Your task to perform on an android device: Go to ESPN.com Image 0: 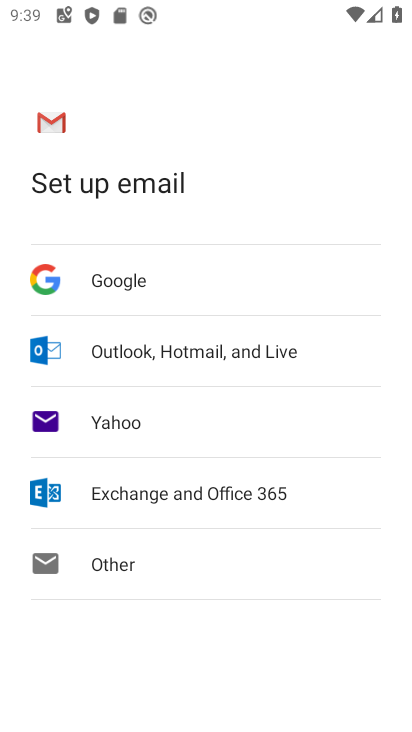
Step 0: press home button
Your task to perform on an android device: Go to ESPN.com Image 1: 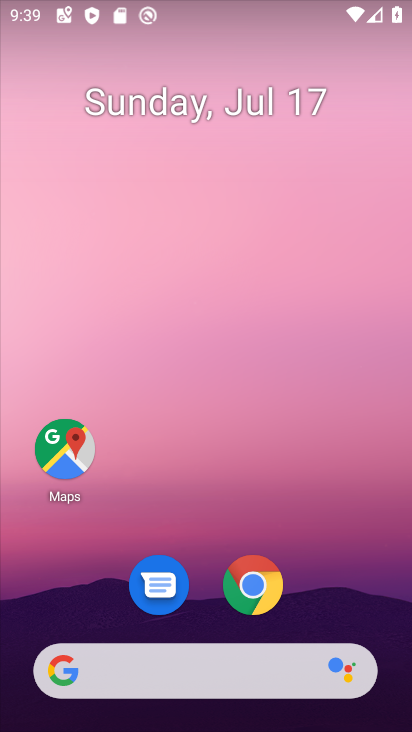
Step 1: click (234, 675)
Your task to perform on an android device: Go to ESPN.com Image 2: 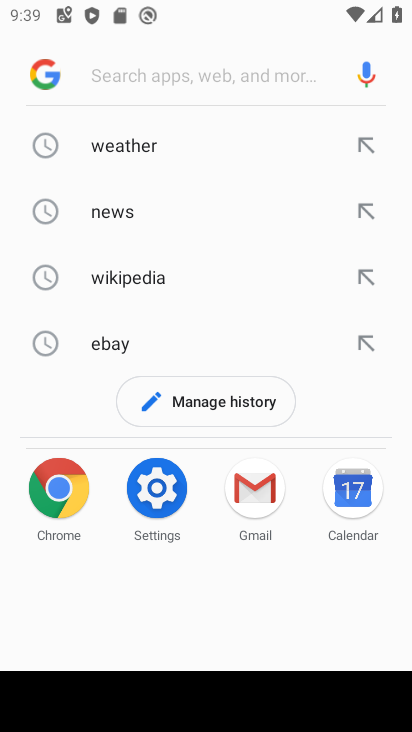
Step 2: type "espn.com"
Your task to perform on an android device: Go to ESPN.com Image 3: 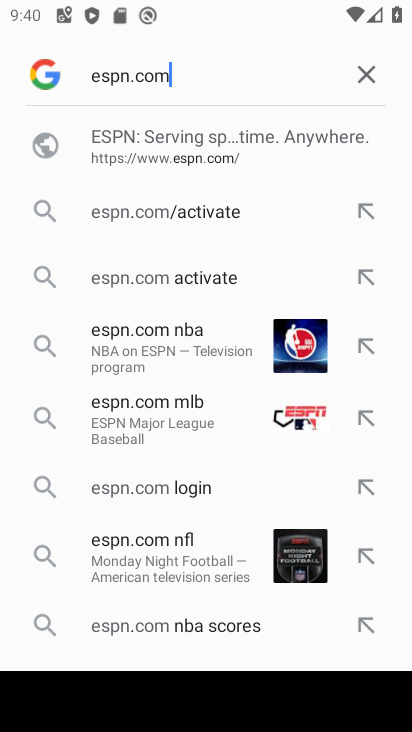
Step 3: click (137, 151)
Your task to perform on an android device: Go to ESPN.com Image 4: 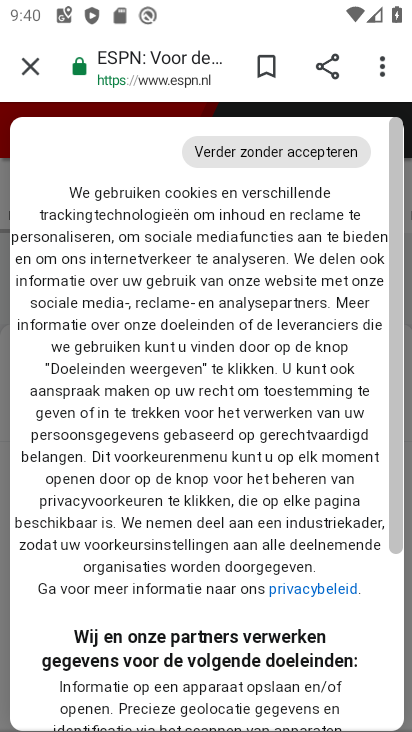
Step 4: task complete